Your task to perform on an android device: Go to wifi settings Image 0: 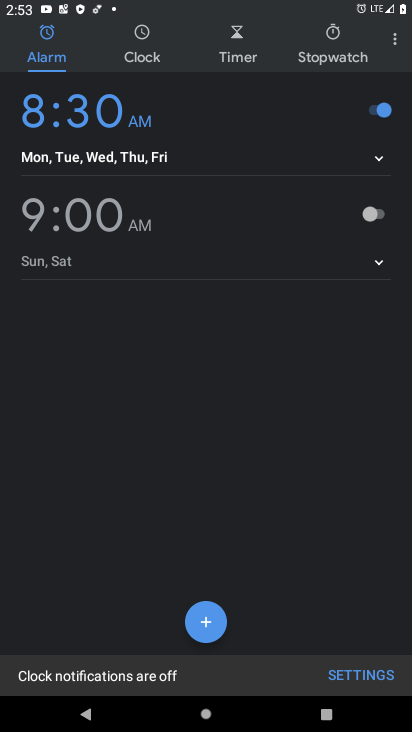
Step 0: press home button
Your task to perform on an android device: Go to wifi settings Image 1: 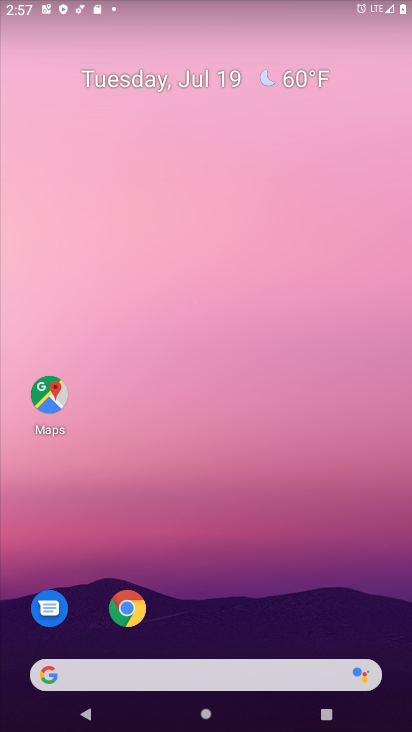
Step 1: drag from (221, 586) to (310, 1)
Your task to perform on an android device: Go to wifi settings Image 2: 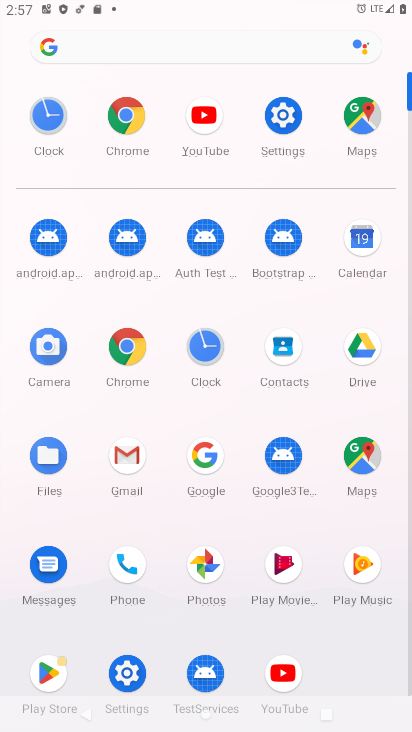
Step 2: click (279, 119)
Your task to perform on an android device: Go to wifi settings Image 3: 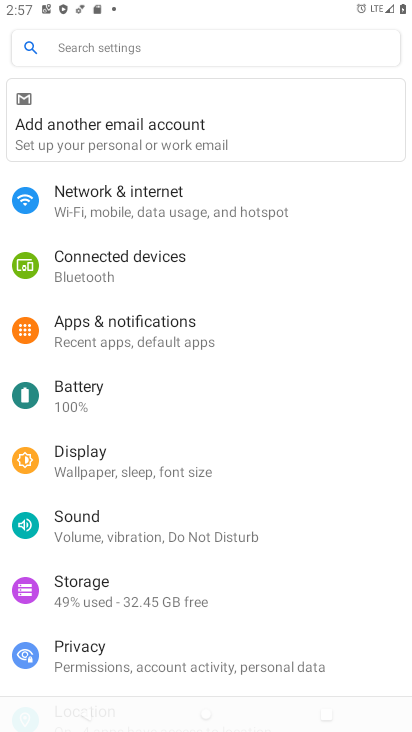
Step 3: click (123, 196)
Your task to perform on an android device: Go to wifi settings Image 4: 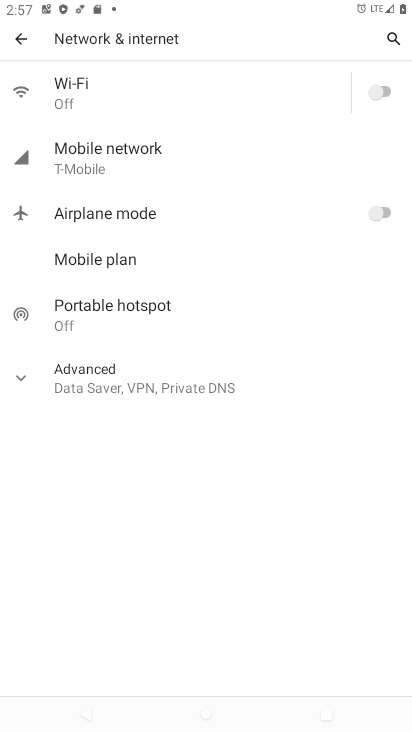
Step 4: click (82, 96)
Your task to perform on an android device: Go to wifi settings Image 5: 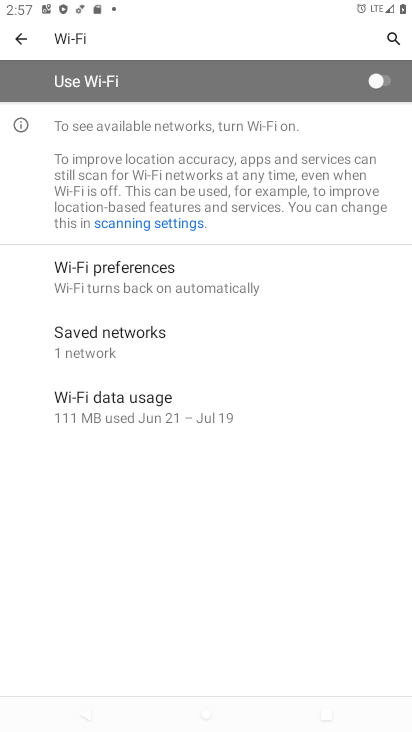
Step 5: task complete